Your task to perform on an android device: delete the emails in spam in the gmail app Image 0: 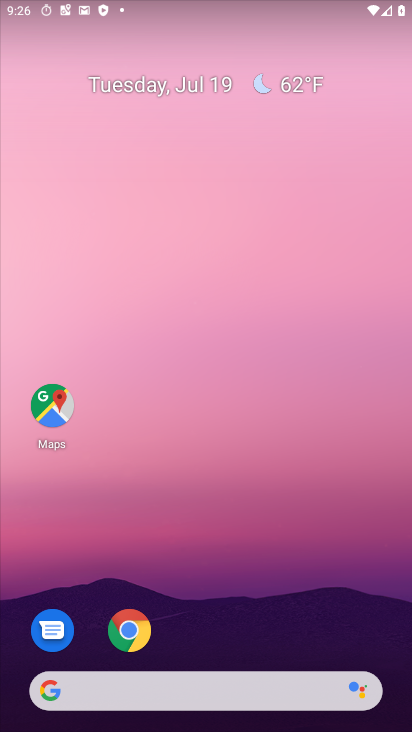
Step 0: drag from (13, 693) to (147, 153)
Your task to perform on an android device: delete the emails in spam in the gmail app Image 1: 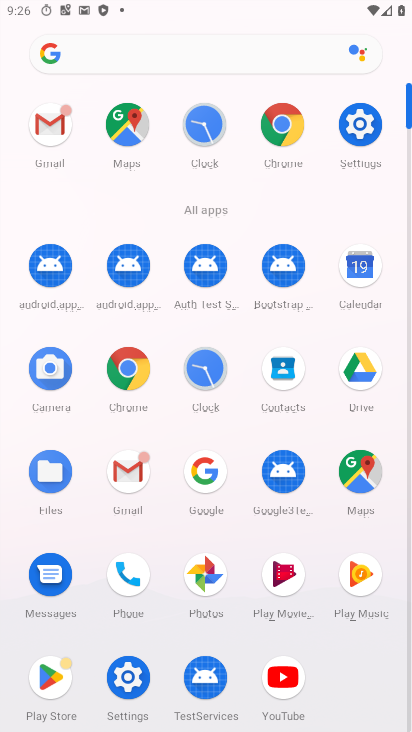
Step 1: click (120, 486)
Your task to perform on an android device: delete the emails in spam in the gmail app Image 2: 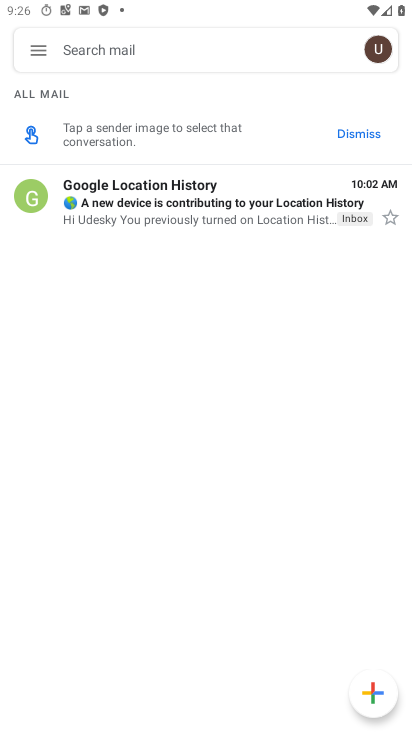
Step 2: click (32, 54)
Your task to perform on an android device: delete the emails in spam in the gmail app Image 3: 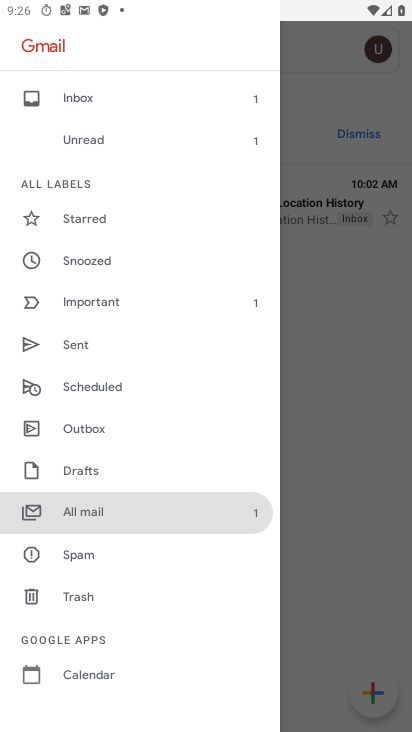
Step 3: click (84, 550)
Your task to perform on an android device: delete the emails in spam in the gmail app Image 4: 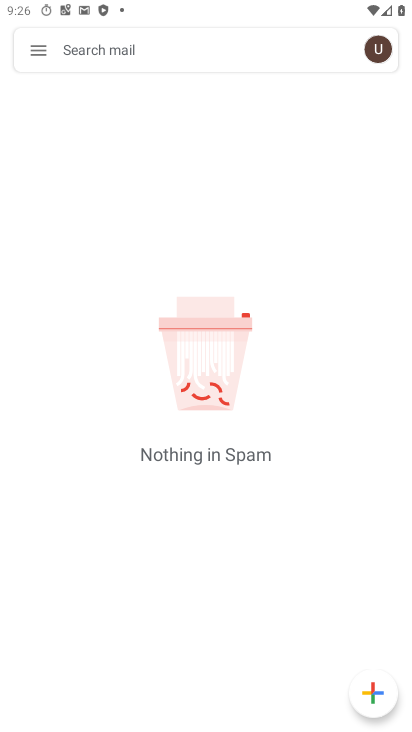
Step 4: task complete